Your task to perform on an android device: move a message to another label in the gmail app Image 0: 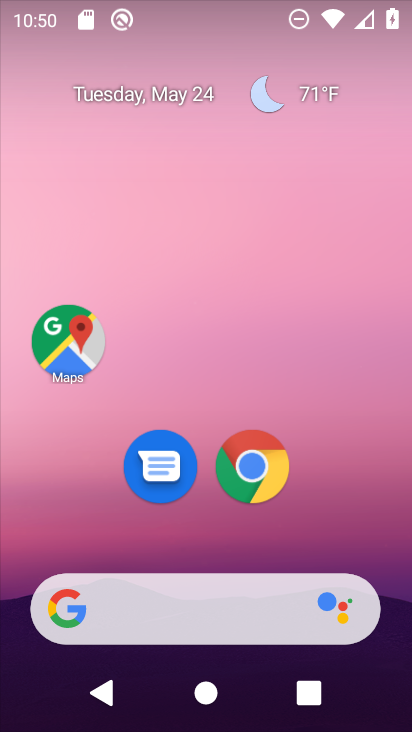
Step 0: drag from (219, 531) to (308, 44)
Your task to perform on an android device: move a message to another label in the gmail app Image 1: 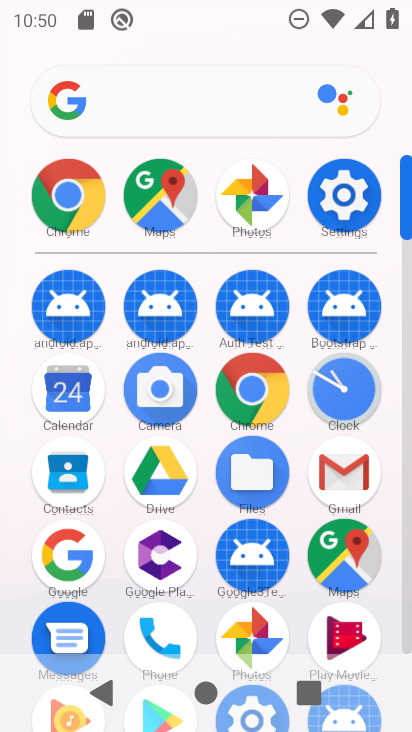
Step 1: click (323, 456)
Your task to perform on an android device: move a message to another label in the gmail app Image 2: 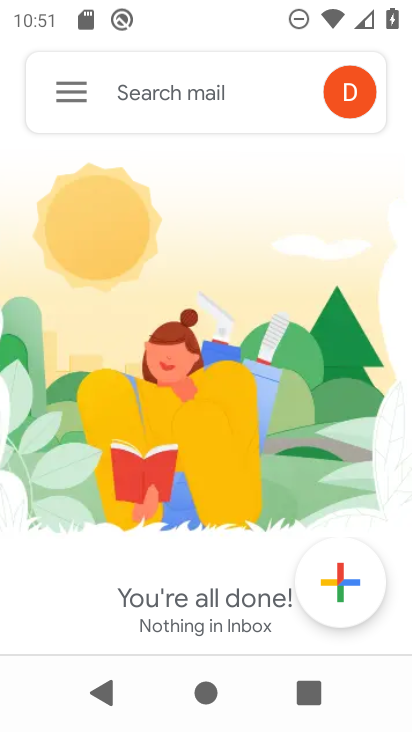
Step 2: click (76, 97)
Your task to perform on an android device: move a message to another label in the gmail app Image 3: 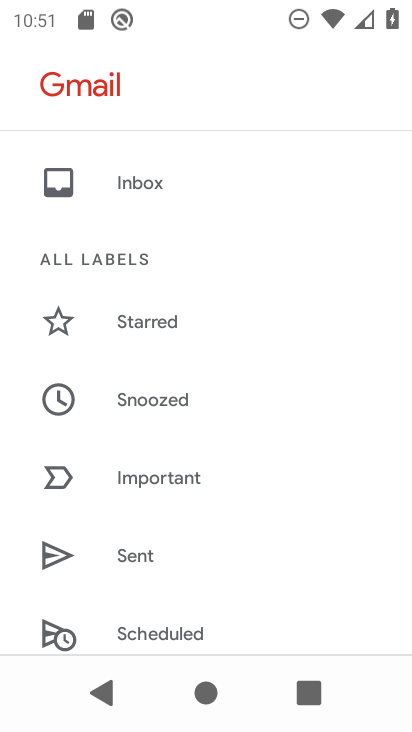
Step 3: drag from (146, 569) to (225, 303)
Your task to perform on an android device: move a message to another label in the gmail app Image 4: 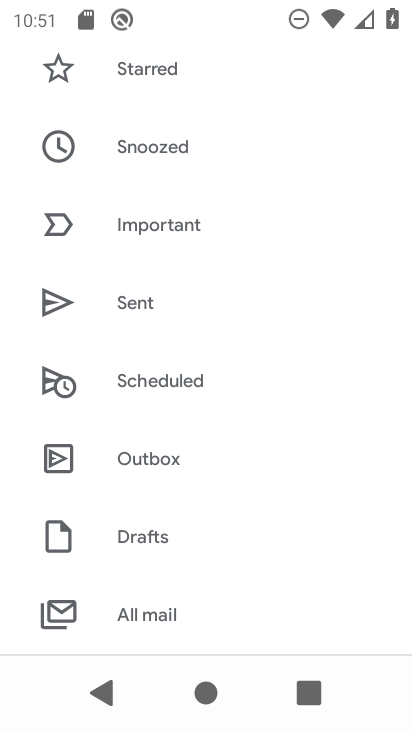
Step 4: drag from (147, 548) to (188, 351)
Your task to perform on an android device: move a message to another label in the gmail app Image 5: 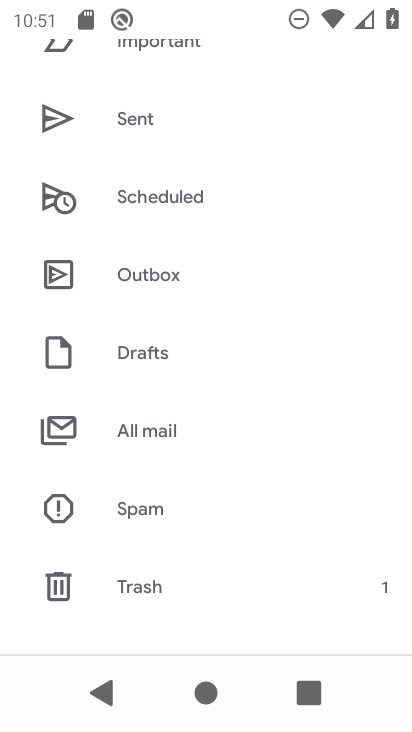
Step 5: click (160, 436)
Your task to perform on an android device: move a message to another label in the gmail app Image 6: 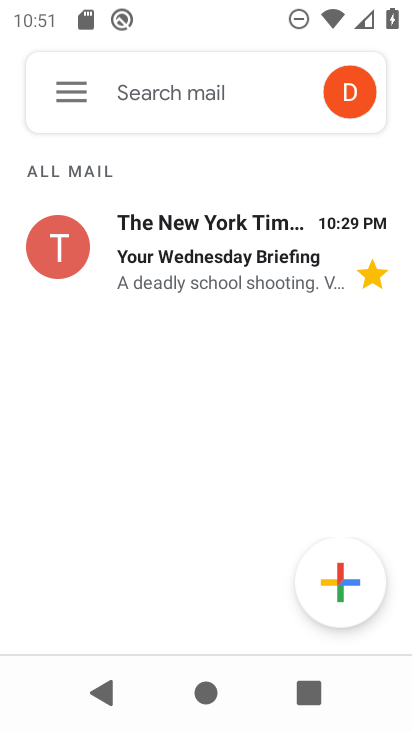
Step 6: click (67, 227)
Your task to perform on an android device: move a message to another label in the gmail app Image 7: 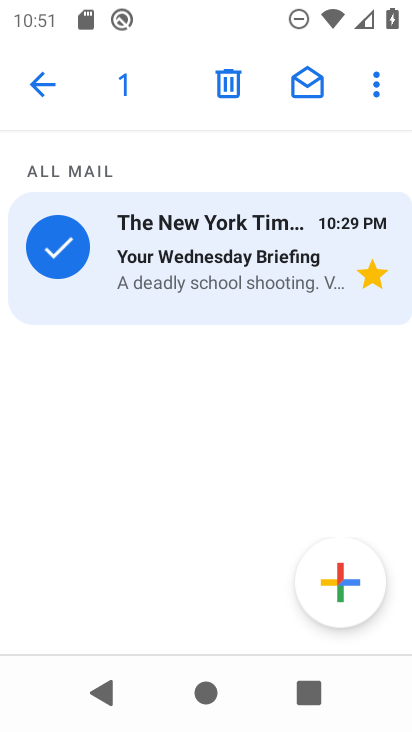
Step 7: click (368, 96)
Your task to perform on an android device: move a message to another label in the gmail app Image 8: 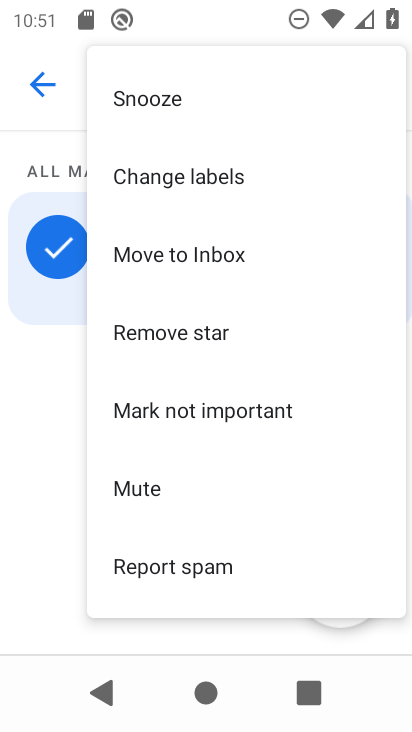
Step 8: click (237, 167)
Your task to perform on an android device: move a message to another label in the gmail app Image 9: 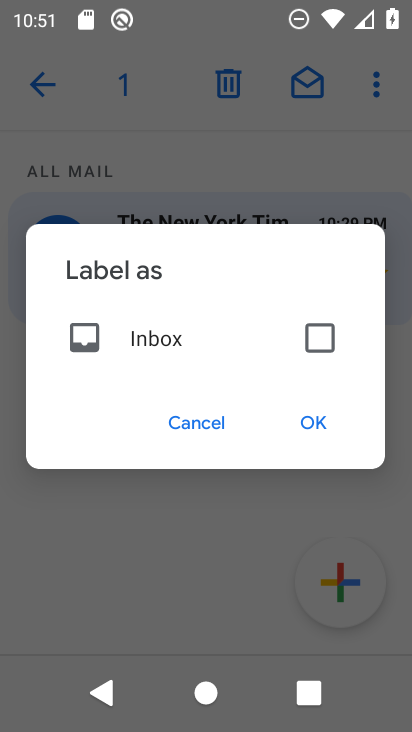
Step 9: click (314, 342)
Your task to perform on an android device: move a message to another label in the gmail app Image 10: 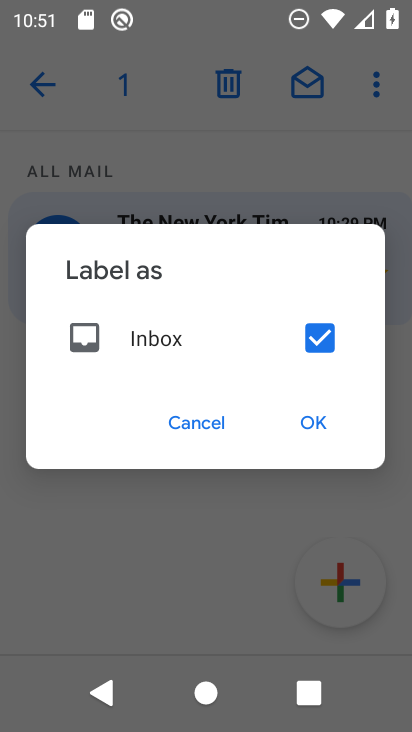
Step 10: click (316, 426)
Your task to perform on an android device: move a message to another label in the gmail app Image 11: 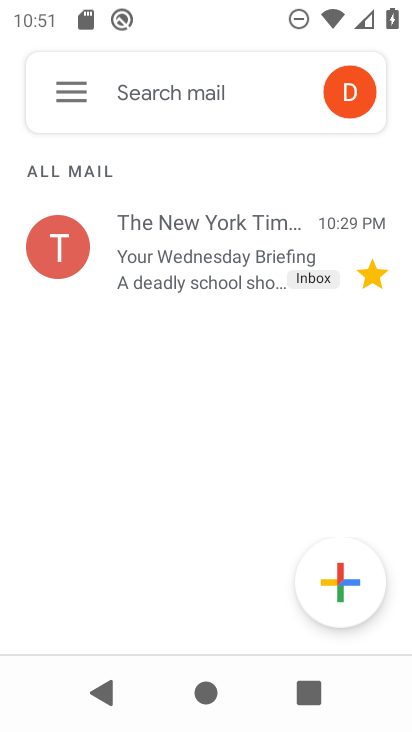
Step 11: task complete